Your task to perform on an android device: show emergency info Image 0: 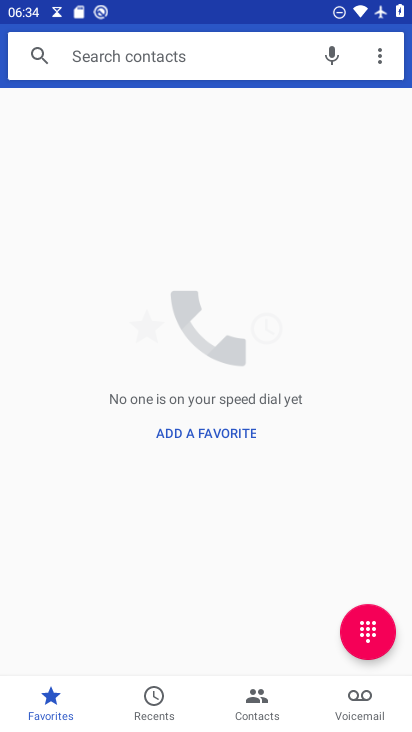
Step 0: press home button
Your task to perform on an android device: show emergency info Image 1: 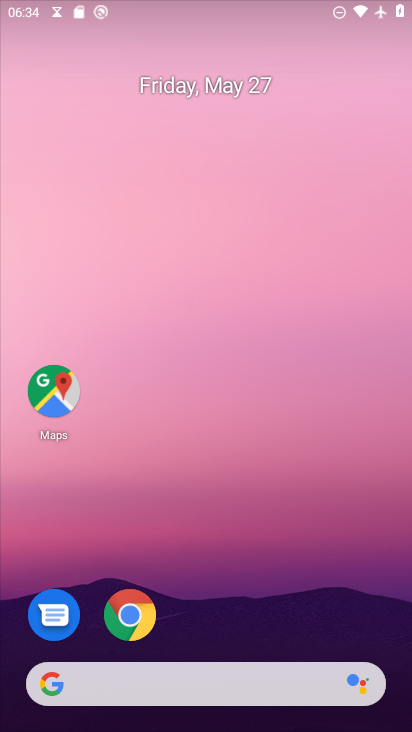
Step 1: drag from (300, 590) to (201, 20)
Your task to perform on an android device: show emergency info Image 2: 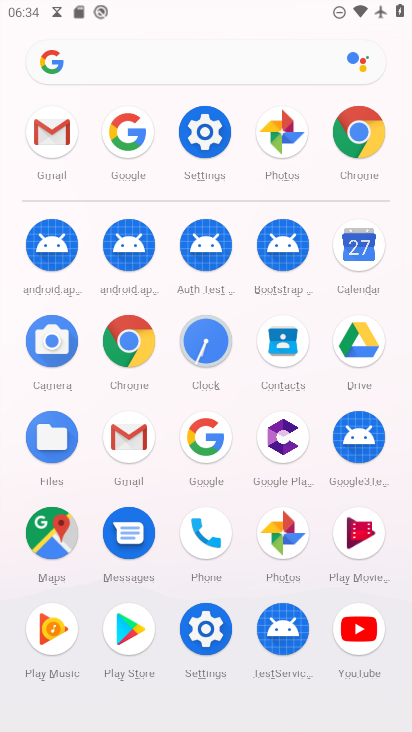
Step 2: click (202, 135)
Your task to perform on an android device: show emergency info Image 3: 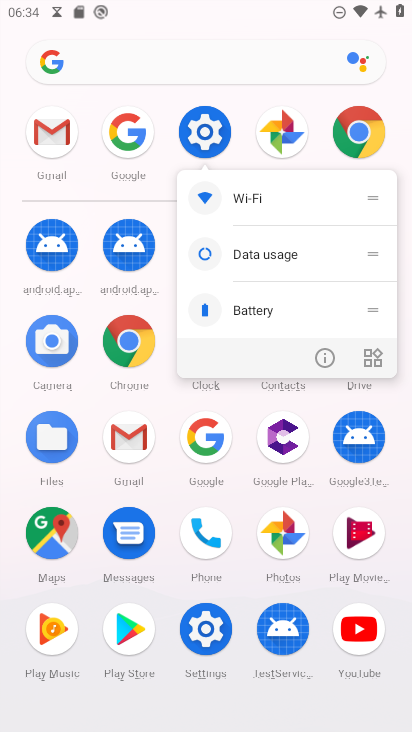
Step 3: click (213, 141)
Your task to perform on an android device: show emergency info Image 4: 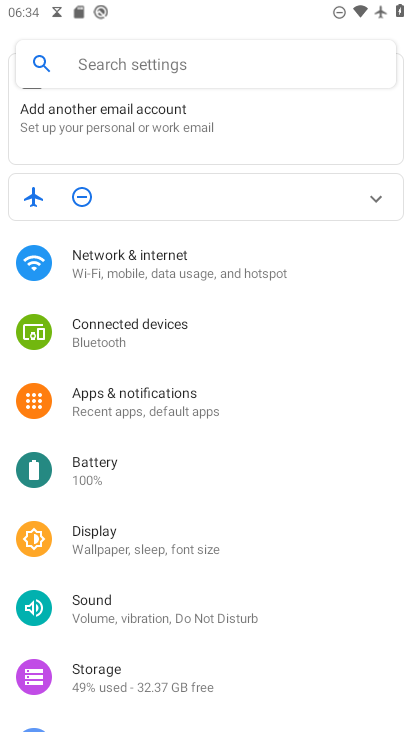
Step 4: drag from (238, 617) to (182, 35)
Your task to perform on an android device: show emergency info Image 5: 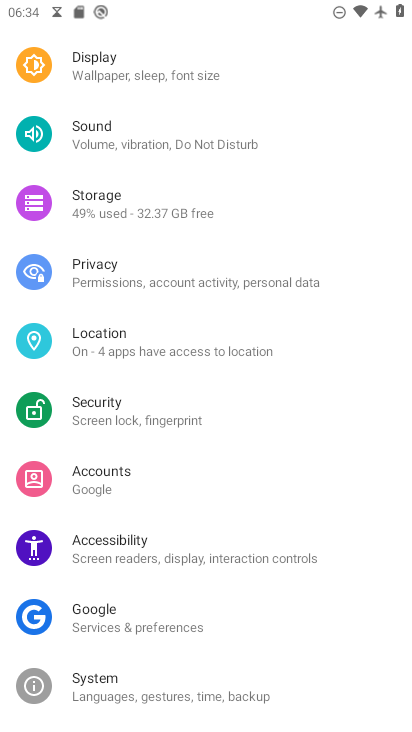
Step 5: drag from (207, 668) to (227, 96)
Your task to perform on an android device: show emergency info Image 6: 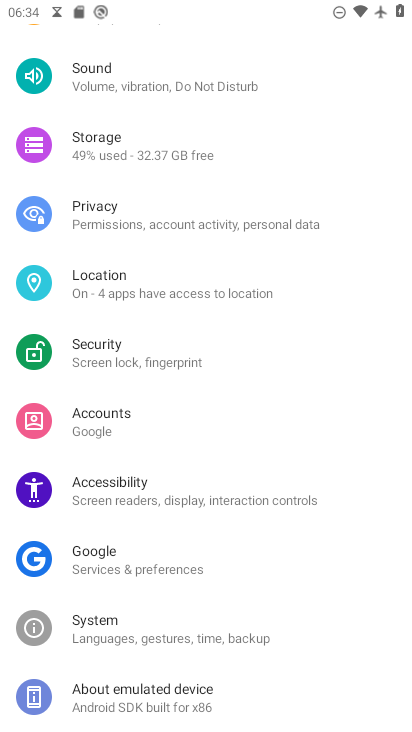
Step 6: click (201, 722)
Your task to perform on an android device: show emergency info Image 7: 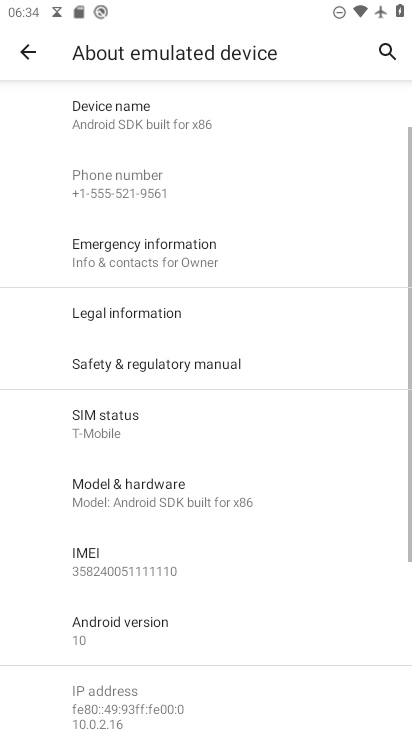
Step 7: click (201, 255)
Your task to perform on an android device: show emergency info Image 8: 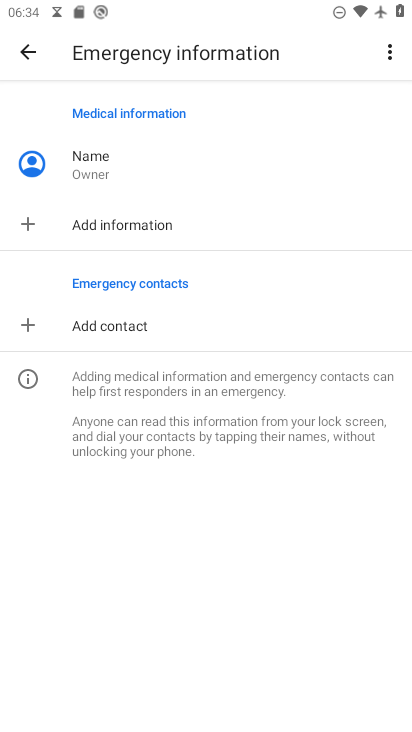
Step 8: task complete